Your task to perform on an android device: Open calendar and show me the third week of next month Image 0: 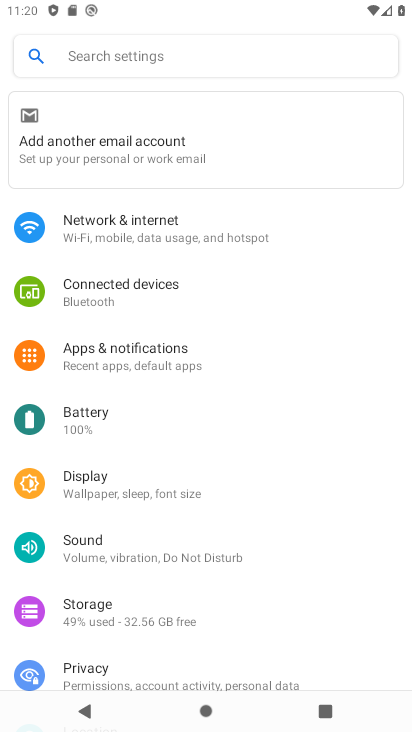
Step 0: press home button
Your task to perform on an android device: Open calendar and show me the third week of next month Image 1: 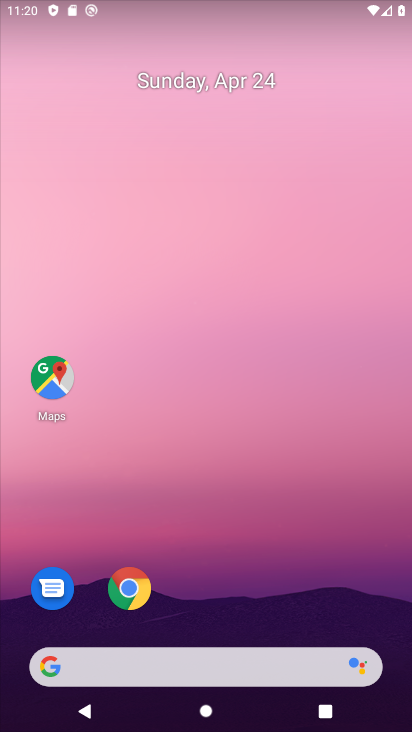
Step 1: drag from (322, 478) to (294, 122)
Your task to perform on an android device: Open calendar and show me the third week of next month Image 2: 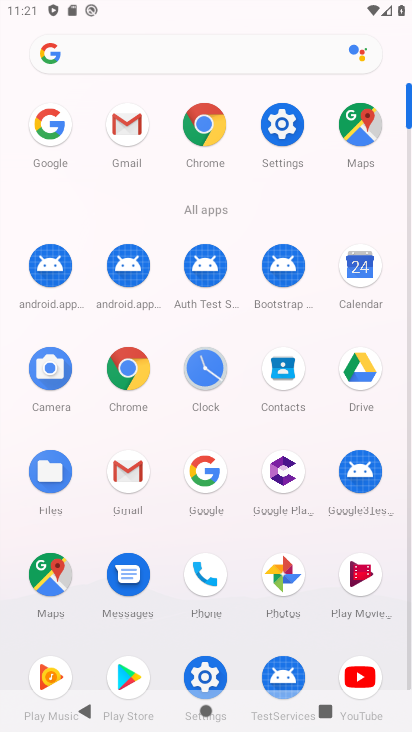
Step 2: click (367, 264)
Your task to perform on an android device: Open calendar and show me the third week of next month Image 3: 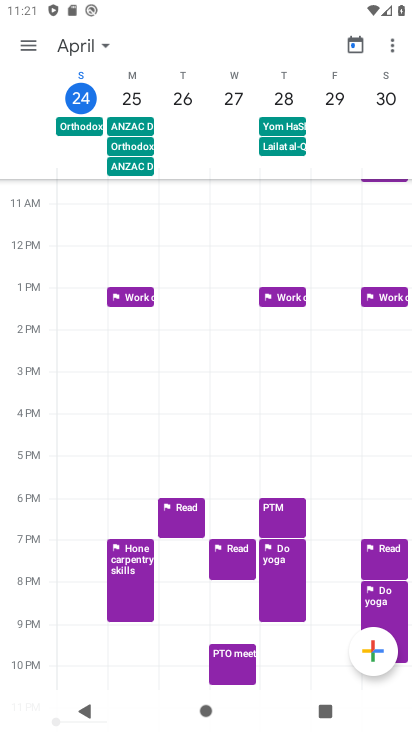
Step 3: click (106, 47)
Your task to perform on an android device: Open calendar and show me the third week of next month Image 4: 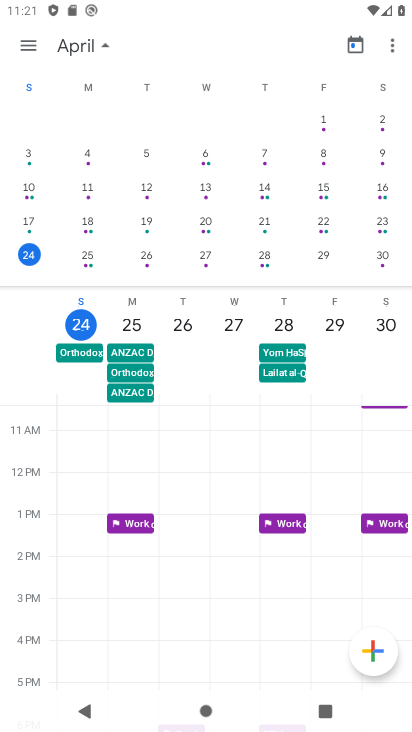
Step 4: click (25, 154)
Your task to perform on an android device: Open calendar and show me the third week of next month Image 5: 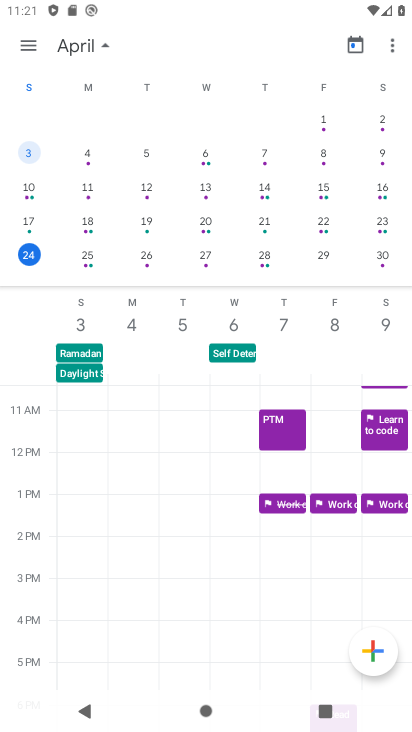
Step 5: drag from (334, 161) to (3, 190)
Your task to perform on an android device: Open calendar and show me the third week of next month Image 6: 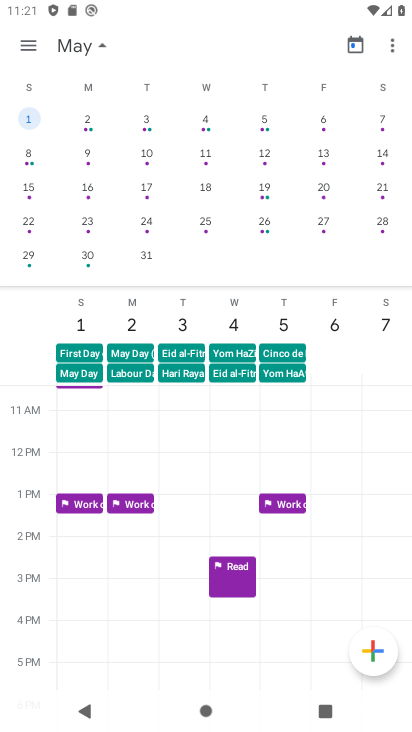
Step 6: click (34, 191)
Your task to perform on an android device: Open calendar and show me the third week of next month Image 7: 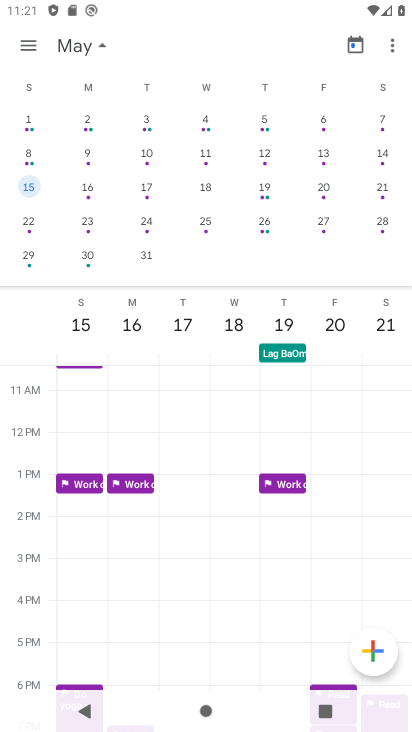
Step 7: task complete